Your task to perform on an android device: Open my contact list Image 0: 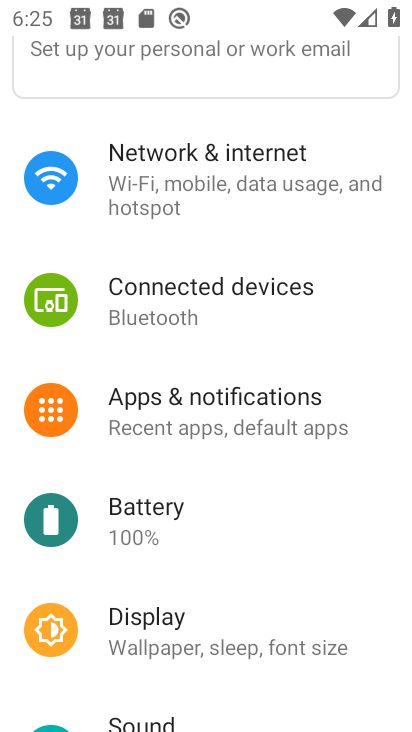
Step 0: press home button
Your task to perform on an android device: Open my contact list Image 1: 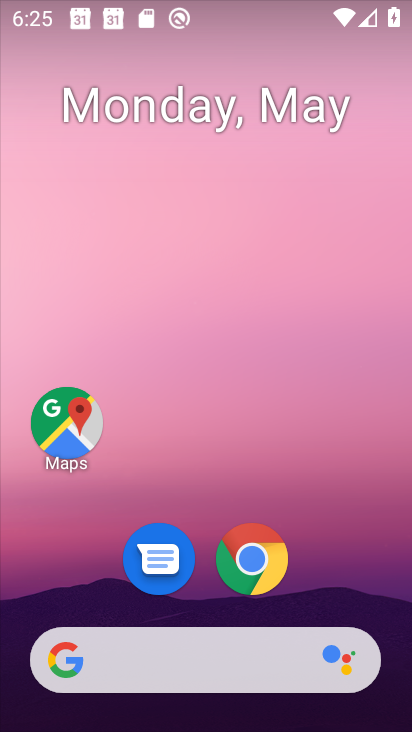
Step 1: drag from (383, 614) to (273, 201)
Your task to perform on an android device: Open my contact list Image 2: 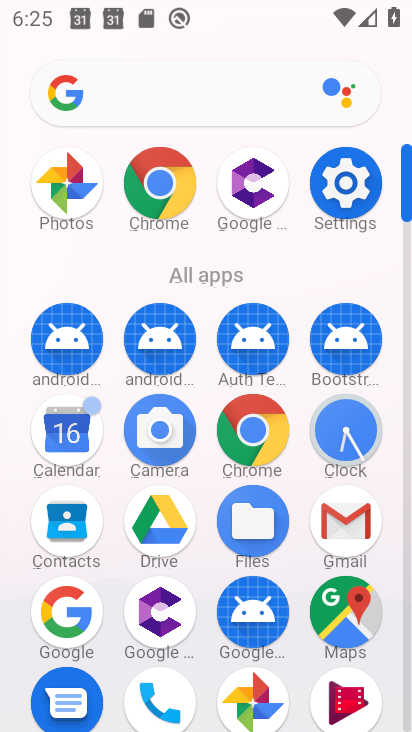
Step 2: click (60, 519)
Your task to perform on an android device: Open my contact list Image 3: 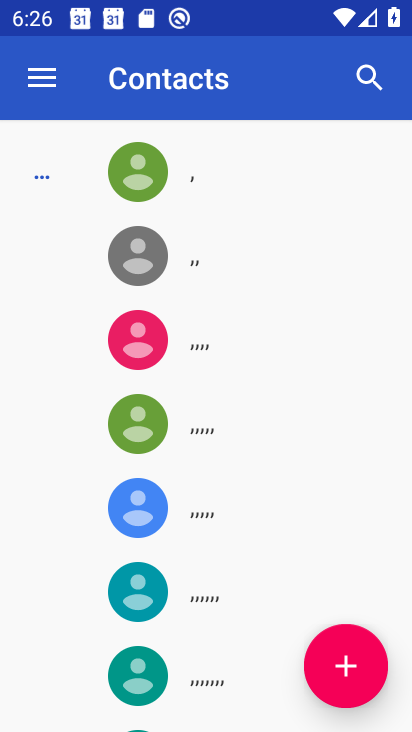
Step 3: task complete